Your task to perform on an android device: star an email in the gmail app Image 0: 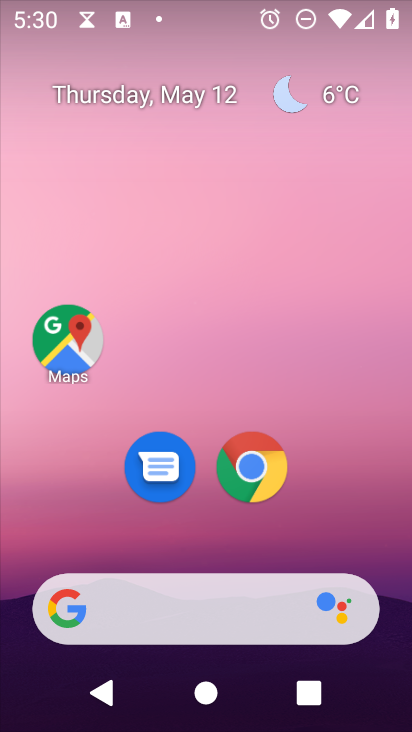
Step 0: drag from (359, 592) to (308, 19)
Your task to perform on an android device: star an email in the gmail app Image 1: 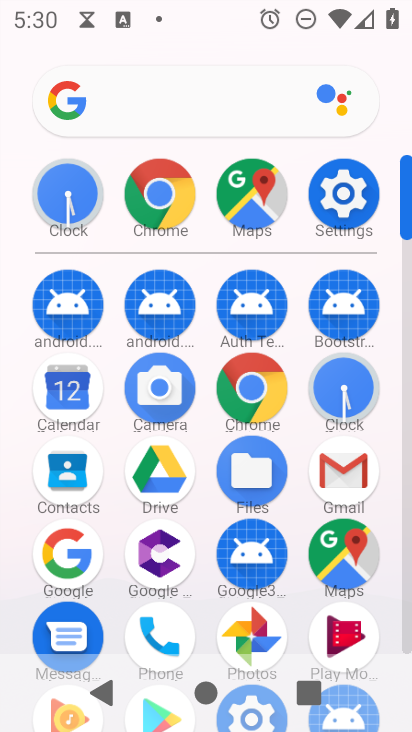
Step 1: click (353, 469)
Your task to perform on an android device: star an email in the gmail app Image 2: 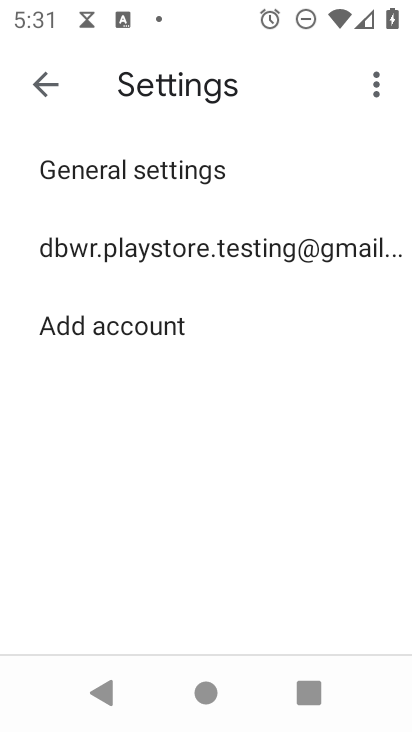
Step 2: press back button
Your task to perform on an android device: star an email in the gmail app Image 3: 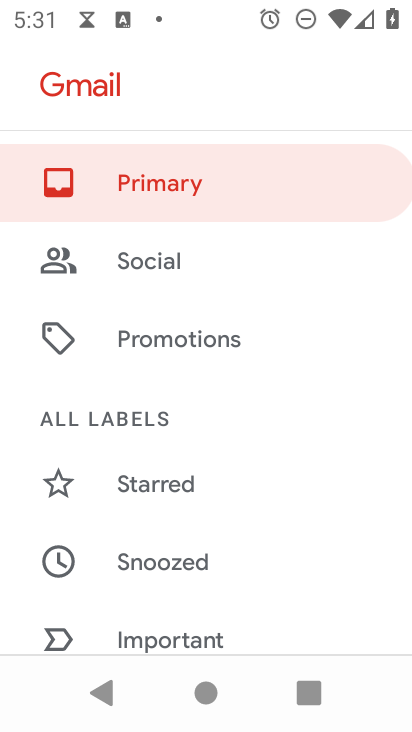
Step 3: click (222, 473)
Your task to perform on an android device: star an email in the gmail app Image 4: 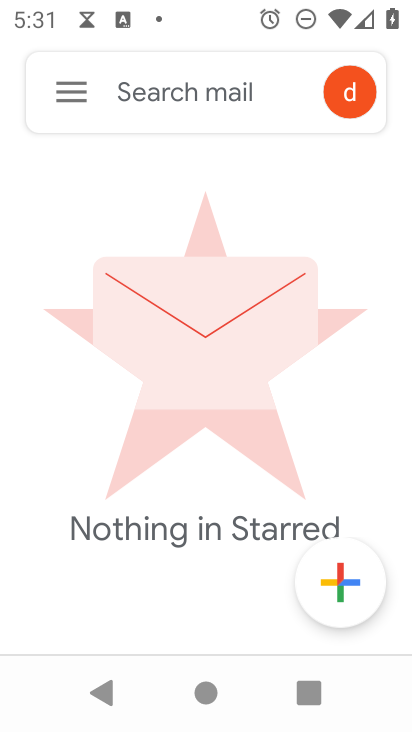
Step 4: task complete